Your task to perform on an android device: create a new album in the google photos Image 0: 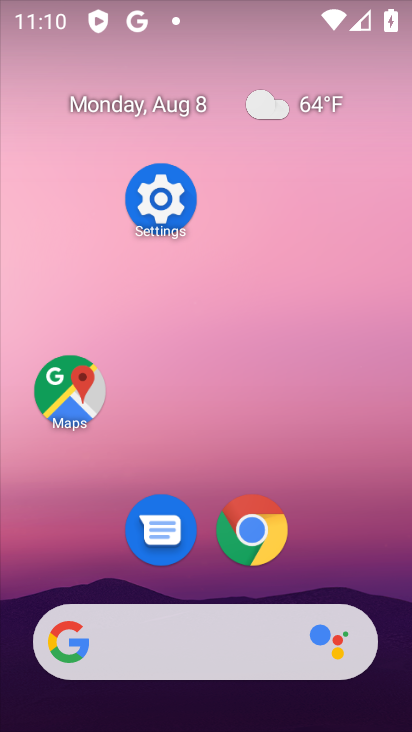
Step 0: drag from (281, 480) to (296, 14)
Your task to perform on an android device: create a new album in the google photos Image 1: 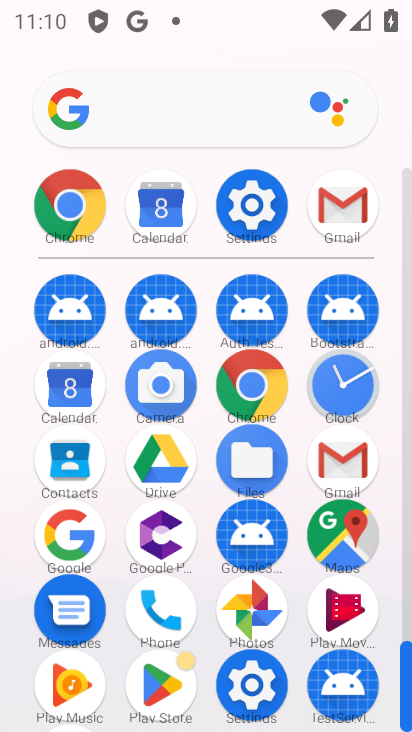
Step 1: click (220, 613)
Your task to perform on an android device: create a new album in the google photos Image 2: 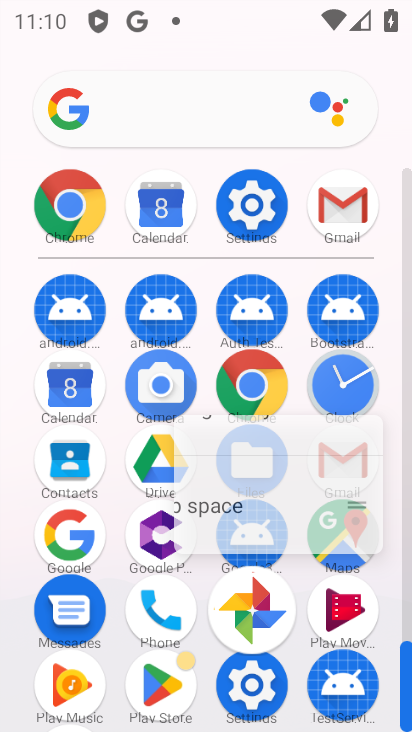
Step 2: click (223, 615)
Your task to perform on an android device: create a new album in the google photos Image 3: 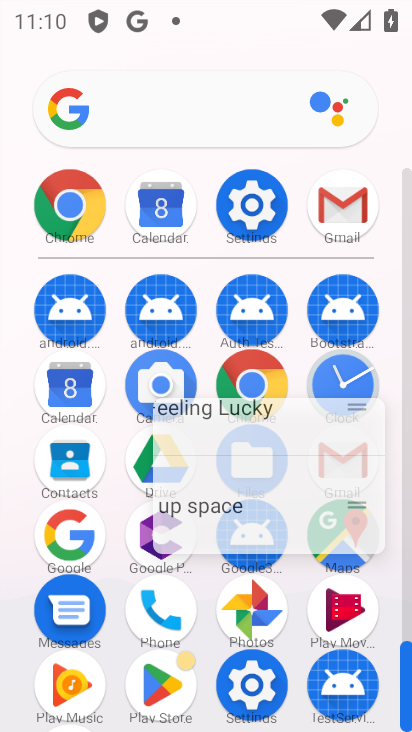
Step 3: click (227, 615)
Your task to perform on an android device: create a new album in the google photos Image 4: 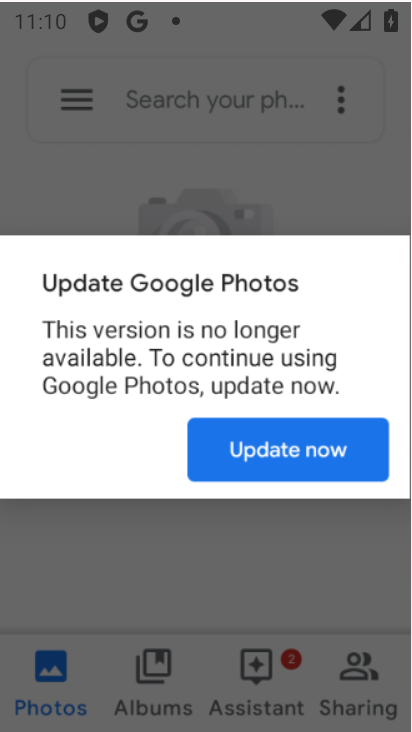
Step 4: click (242, 614)
Your task to perform on an android device: create a new album in the google photos Image 5: 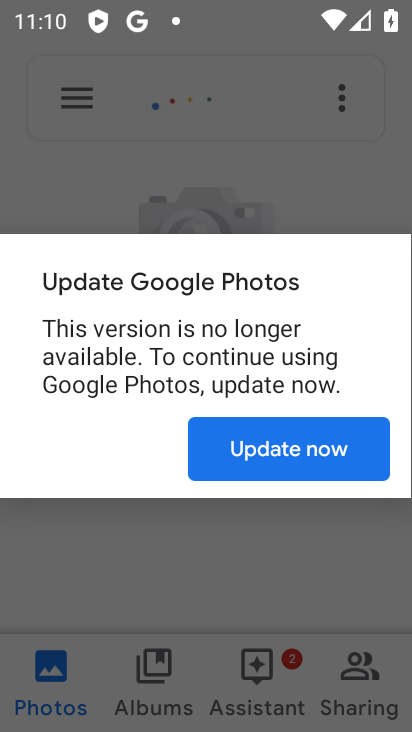
Step 5: click (98, 170)
Your task to perform on an android device: create a new album in the google photos Image 6: 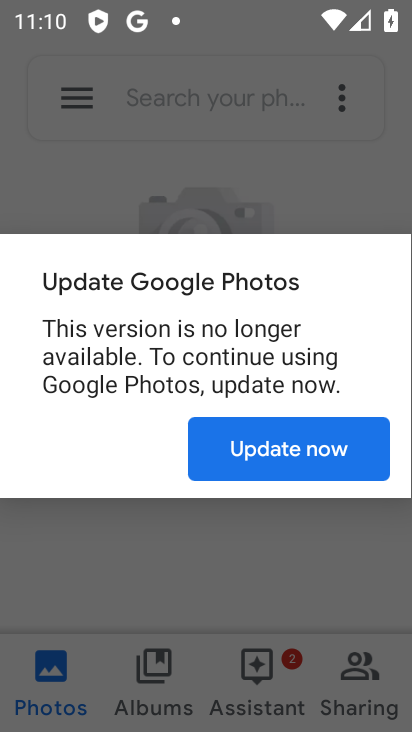
Step 6: click (97, 170)
Your task to perform on an android device: create a new album in the google photos Image 7: 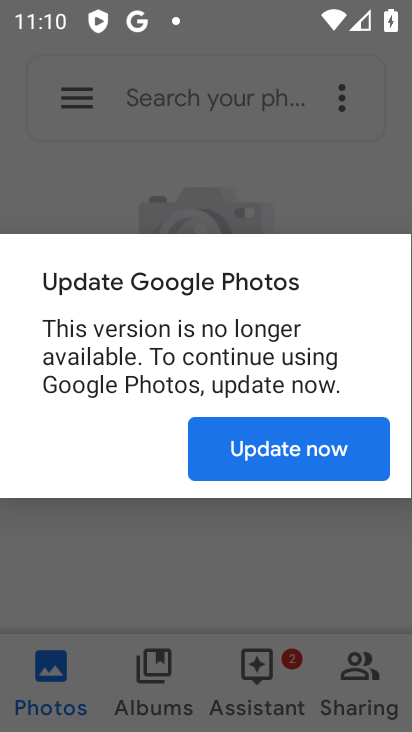
Step 7: click (98, 172)
Your task to perform on an android device: create a new album in the google photos Image 8: 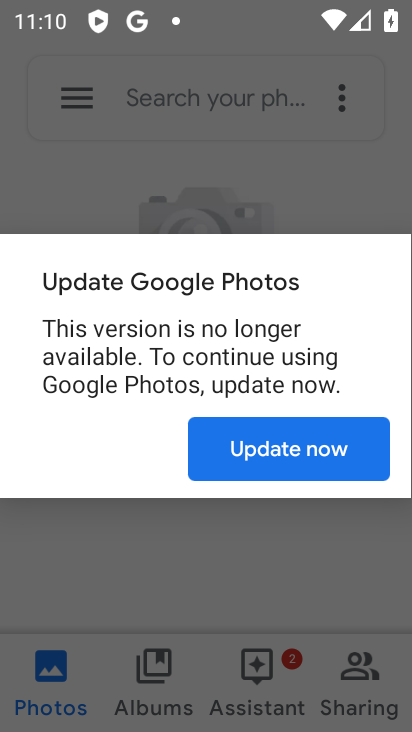
Step 8: click (103, 178)
Your task to perform on an android device: create a new album in the google photos Image 9: 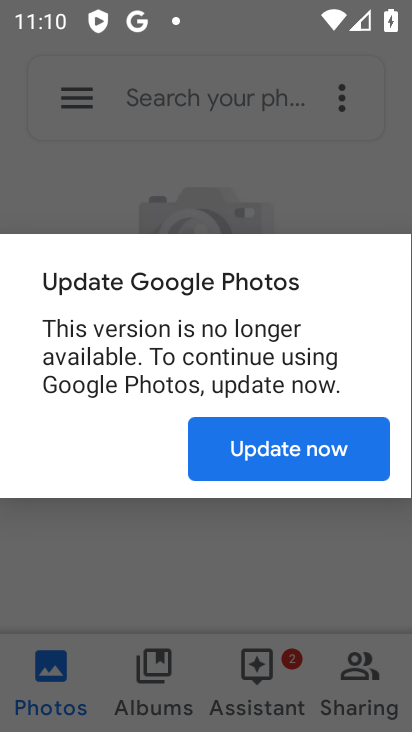
Step 9: click (105, 179)
Your task to perform on an android device: create a new album in the google photos Image 10: 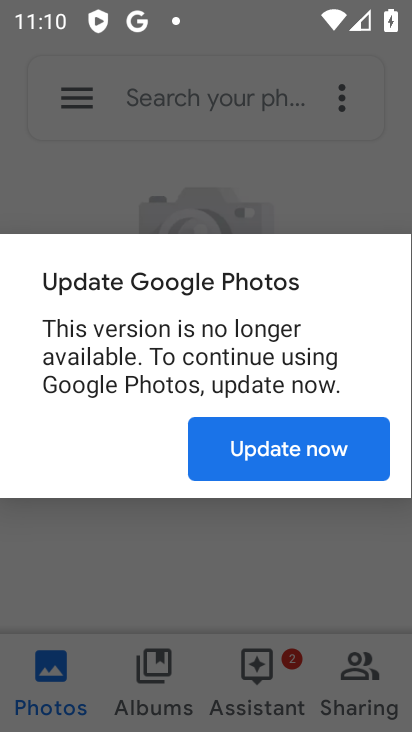
Step 10: click (109, 183)
Your task to perform on an android device: create a new album in the google photos Image 11: 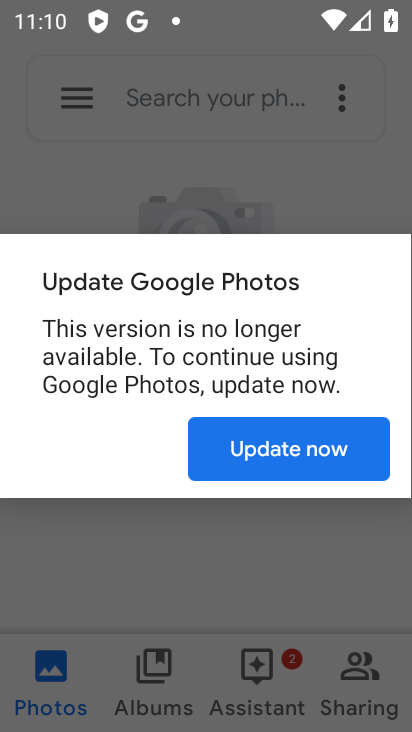
Step 11: click (291, 453)
Your task to perform on an android device: create a new album in the google photos Image 12: 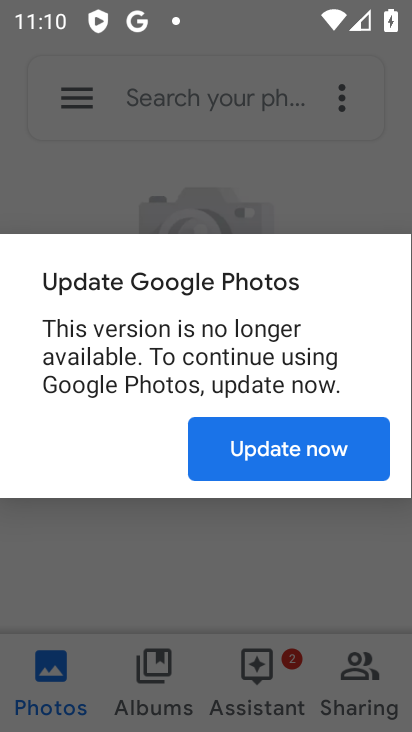
Step 12: click (290, 452)
Your task to perform on an android device: create a new album in the google photos Image 13: 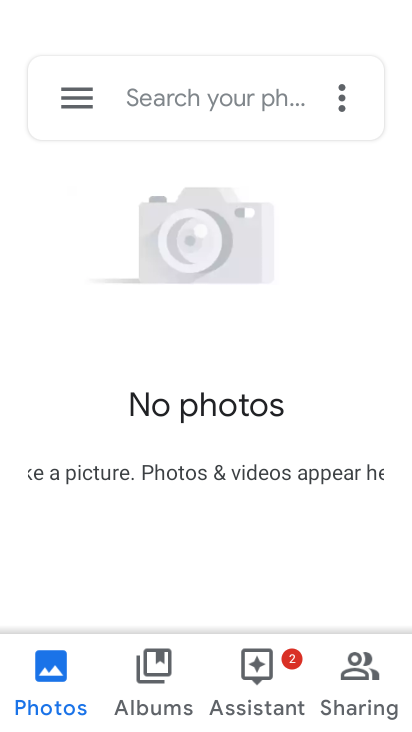
Step 13: click (290, 453)
Your task to perform on an android device: create a new album in the google photos Image 14: 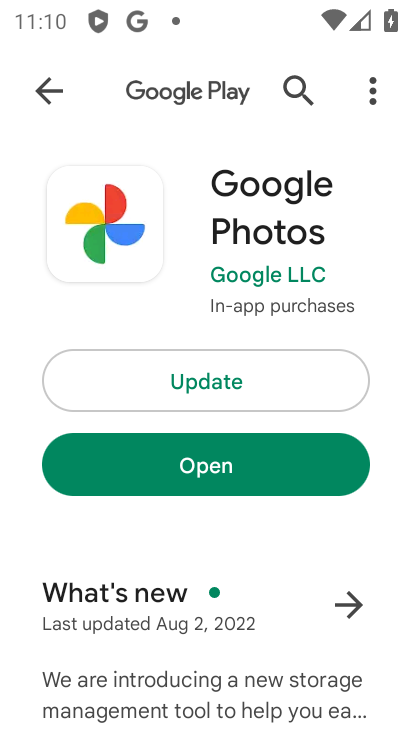
Step 14: click (215, 458)
Your task to perform on an android device: create a new album in the google photos Image 15: 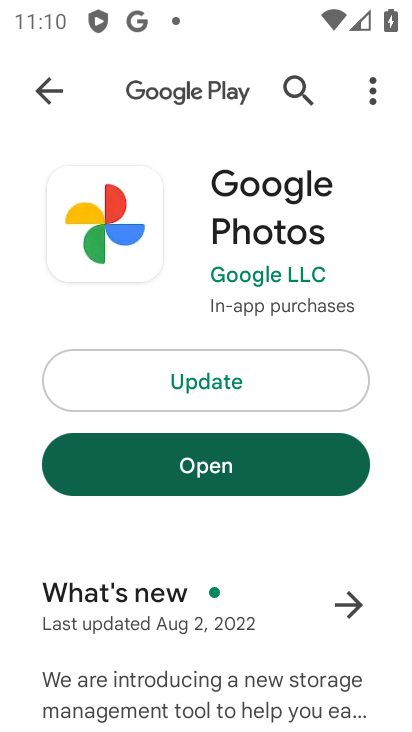
Step 15: click (215, 458)
Your task to perform on an android device: create a new album in the google photos Image 16: 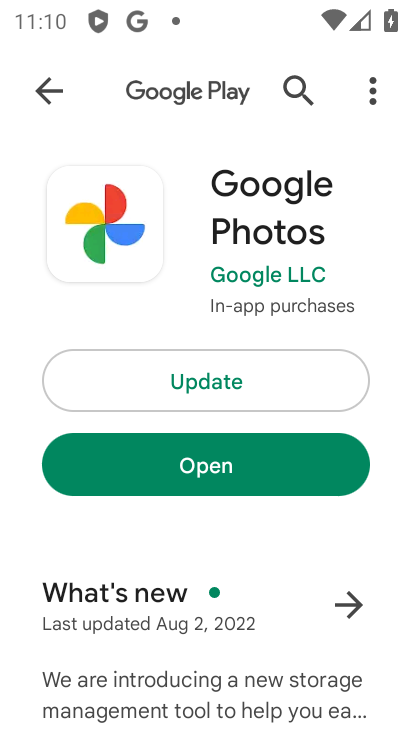
Step 16: click (217, 463)
Your task to perform on an android device: create a new album in the google photos Image 17: 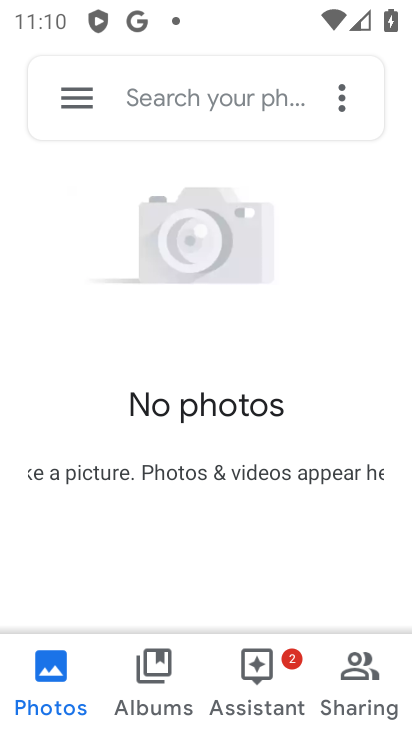
Step 17: task complete